Your task to perform on an android device: Open privacy settings Image 0: 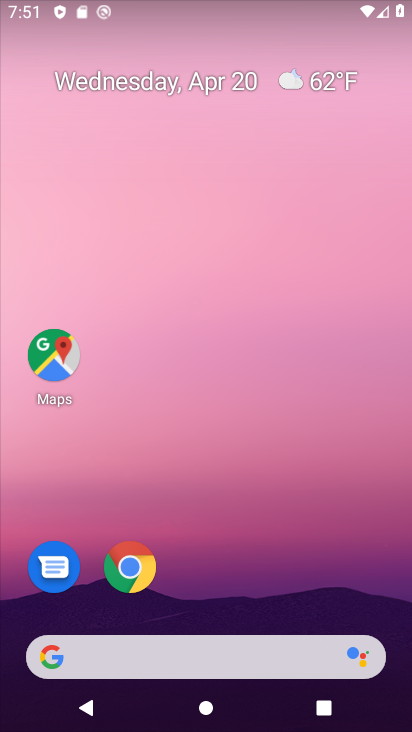
Step 0: drag from (310, 586) to (304, 146)
Your task to perform on an android device: Open privacy settings Image 1: 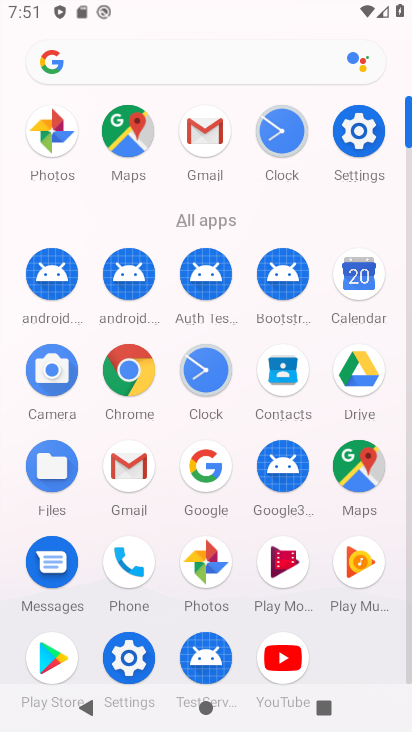
Step 1: click (356, 126)
Your task to perform on an android device: Open privacy settings Image 2: 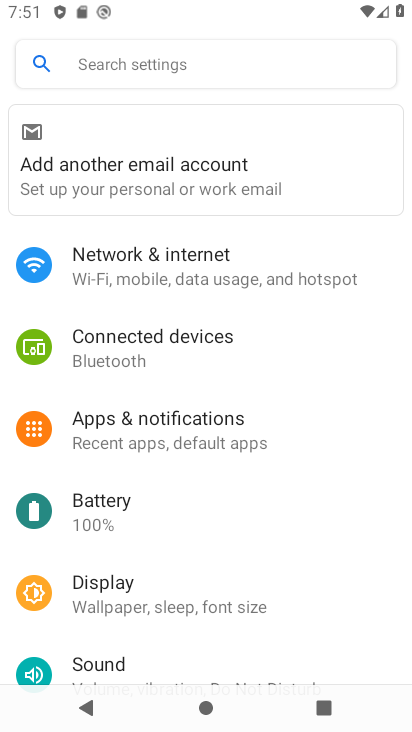
Step 2: drag from (142, 608) to (133, 257)
Your task to perform on an android device: Open privacy settings Image 3: 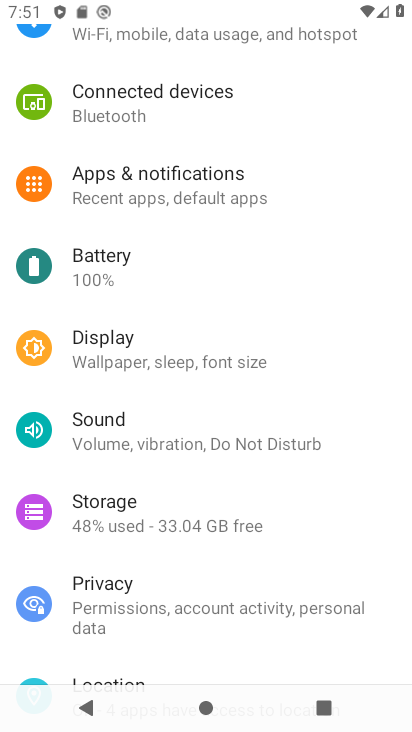
Step 3: drag from (179, 621) to (204, 253)
Your task to perform on an android device: Open privacy settings Image 4: 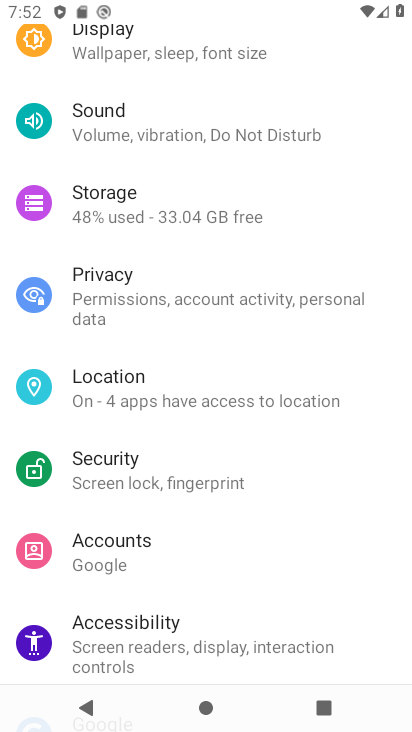
Step 4: click (148, 300)
Your task to perform on an android device: Open privacy settings Image 5: 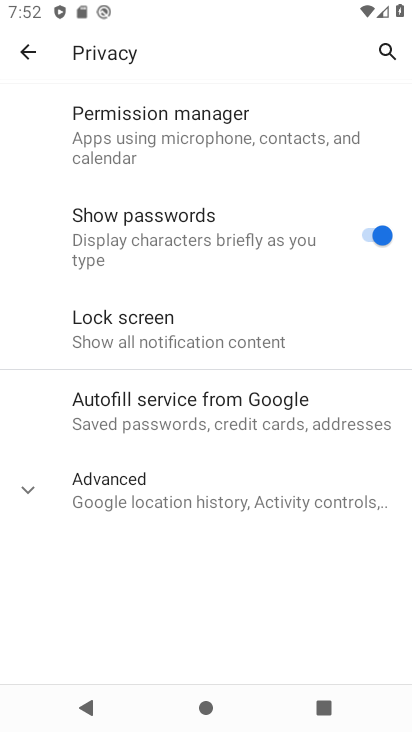
Step 5: task complete